Your task to perform on an android device: Go to network settings Image 0: 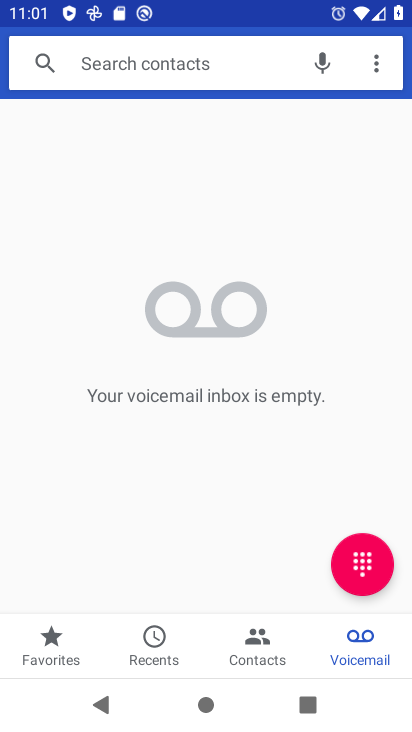
Step 0: drag from (268, 665) to (277, 319)
Your task to perform on an android device: Go to network settings Image 1: 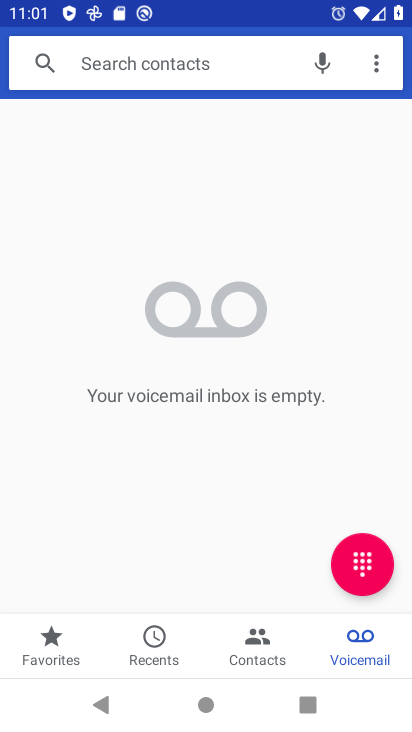
Step 1: press back button
Your task to perform on an android device: Go to network settings Image 2: 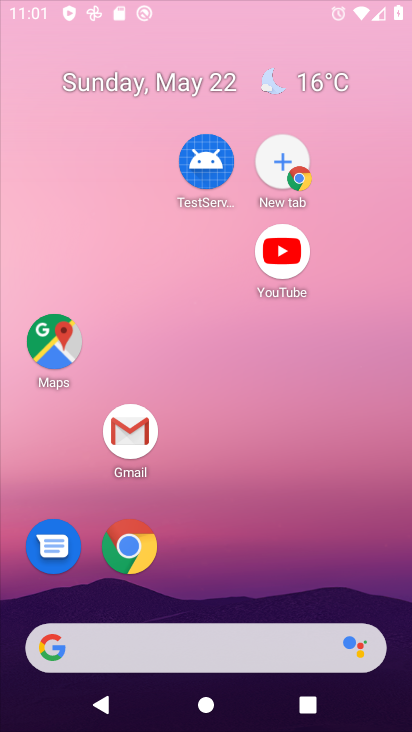
Step 2: press home button
Your task to perform on an android device: Go to network settings Image 3: 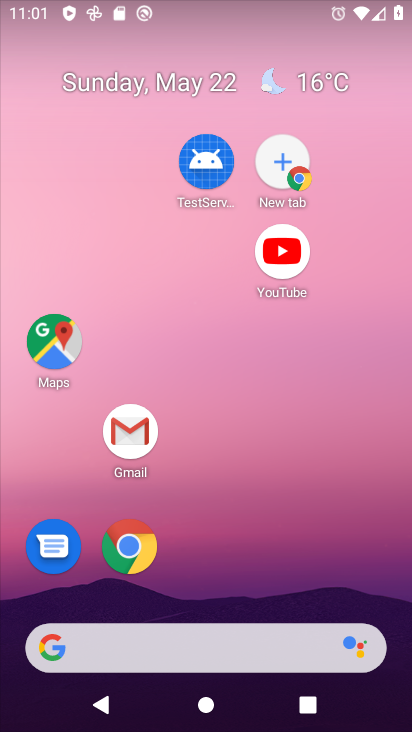
Step 3: drag from (245, 641) to (222, 21)
Your task to perform on an android device: Go to network settings Image 4: 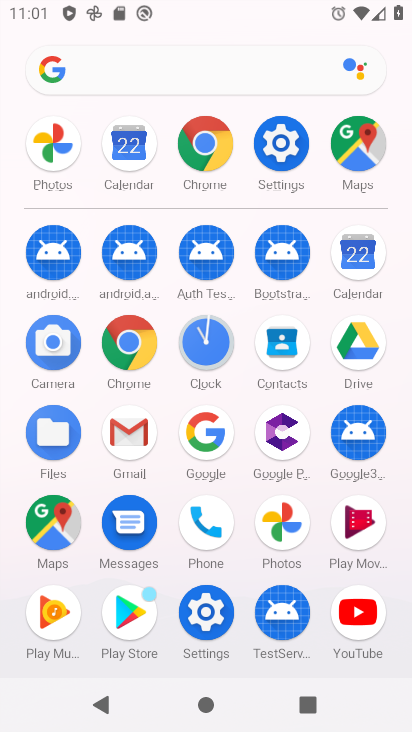
Step 4: click (274, 146)
Your task to perform on an android device: Go to network settings Image 5: 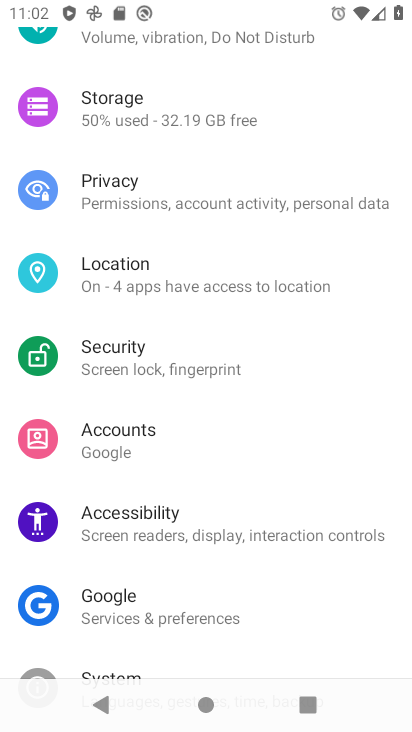
Step 5: drag from (193, 494) to (178, 144)
Your task to perform on an android device: Go to network settings Image 6: 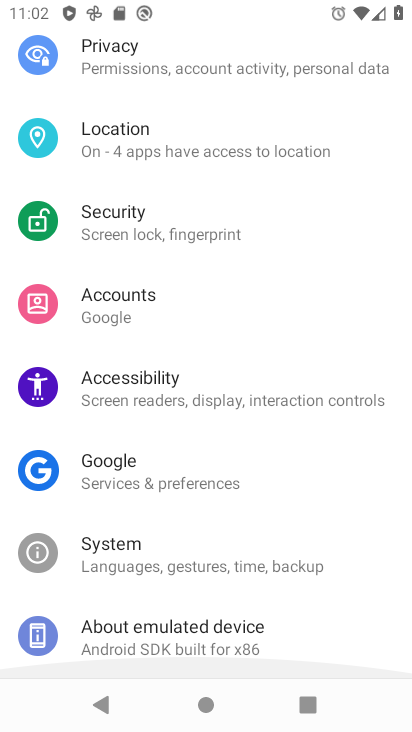
Step 6: drag from (221, 396) to (205, 31)
Your task to perform on an android device: Go to network settings Image 7: 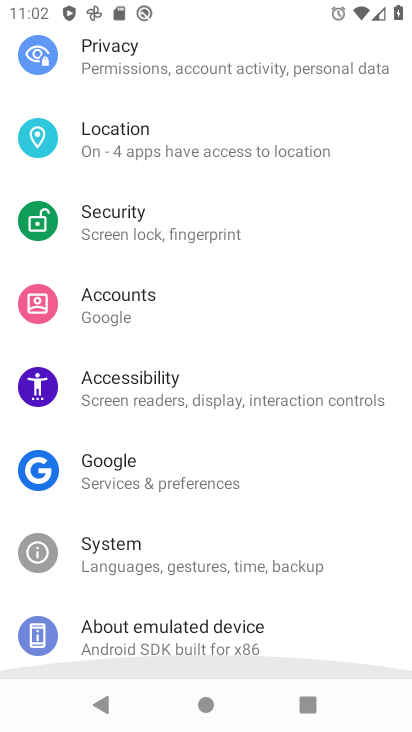
Step 7: drag from (255, 402) to (253, 65)
Your task to perform on an android device: Go to network settings Image 8: 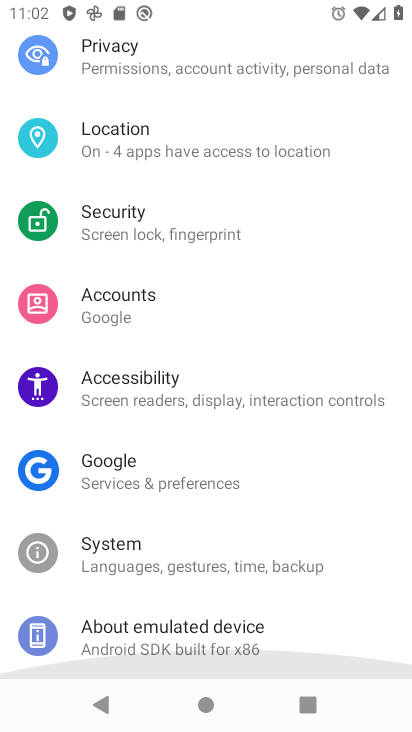
Step 8: drag from (157, 236) to (237, 708)
Your task to perform on an android device: Go to network settings Image 9: 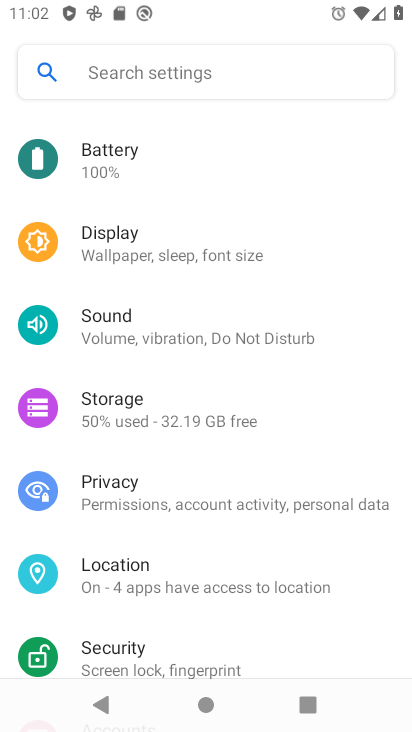
Step 9: drag from (145, 260) to (154, 596)
Your task to perform on an android device: Go to network settings Image 10: 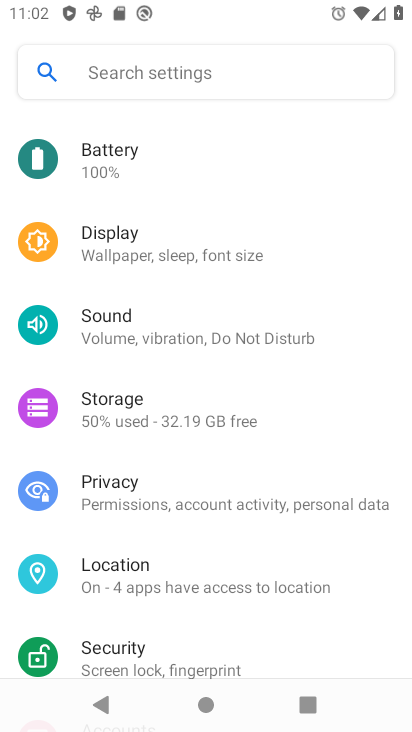
Step 10: drag from (148, 214) to (184, 683)
Your task to perform on an android device: Go to network settings Image 11: 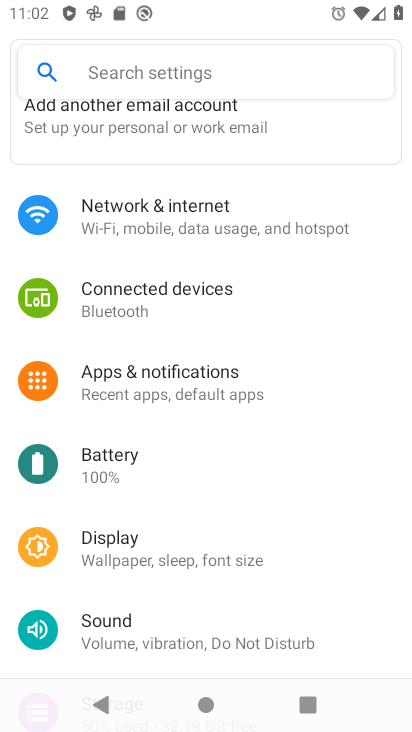
Step 11: drag from (172, 282) to (181, 667)
Your task to perform on an android device: Go to network settings Image 12: 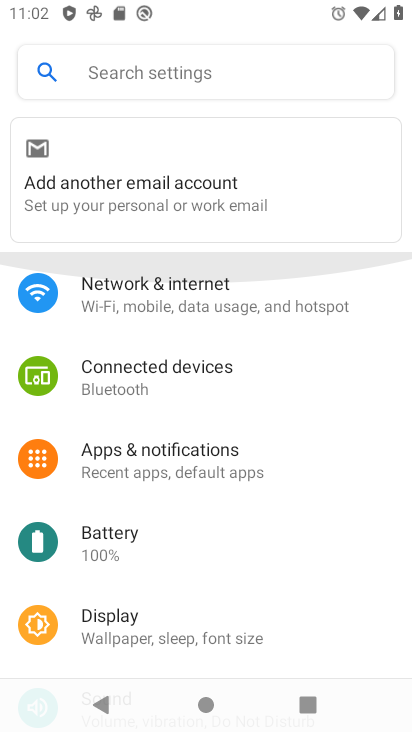
Step 12: drag from (159, 261) to (178, 598)
Your task to perform on an android device: Go to network settings Image 13: 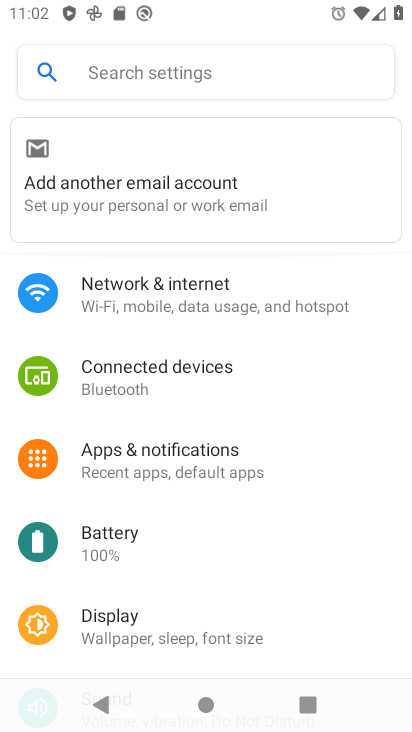
Step 13: click (174, 286)
Your task to perform on an android device: Go to network settings Image 14: 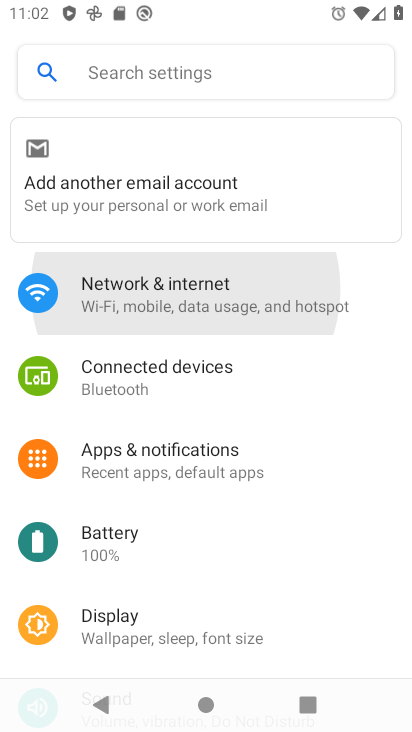
Step 14: click (174, 286)
Your task to perform on an android device: Go to network settings Image 15: 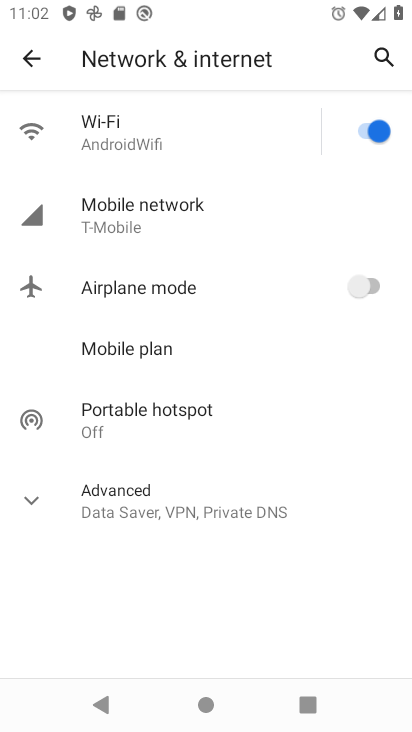
Step 15: task complete